Your task to perform on an android device: What's a good restaurant in Sacramento? Image 0: 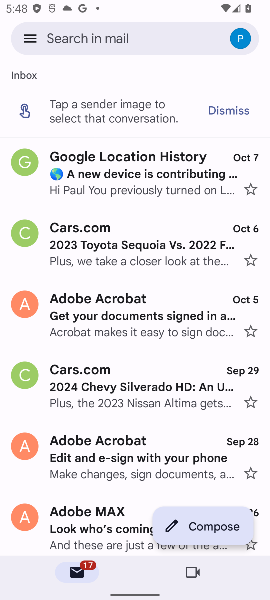
Step 0: press home button
Your task to perform on an android device: What's a good restaurant in Sacramento? Image 1: 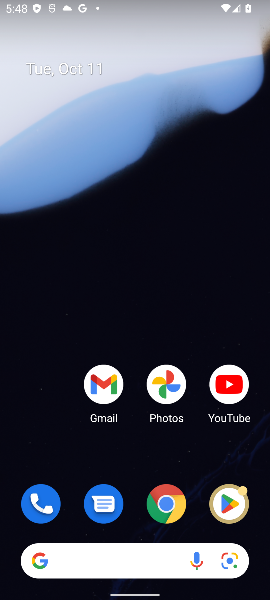
Step 1: click (123, 568)
Your task to perform on an android device: What's a good restaurant in Sacramento? Image 2: 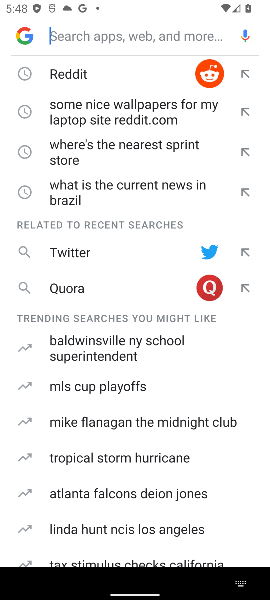
Step 2: click (77, 37)
Your task to perform on an android device: What's a good restaurant in Sacramento? Image 3: 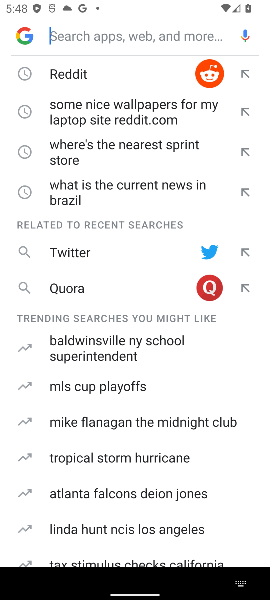
Step 3: type "What's a good restaurant in Sacramento?"
Your task to perform on an android device: What's a good restaurant in Sacramento? Image 4: 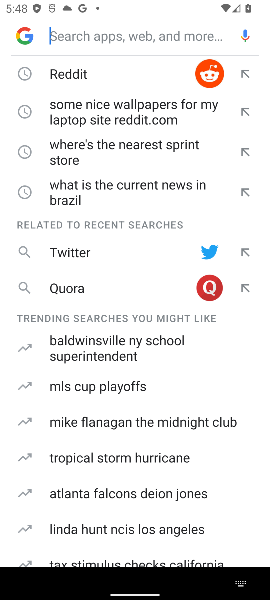
Step 4: click (109, 41)
Your task to perform on an android device: What's a good restaurant in Sacramento? Image 5: 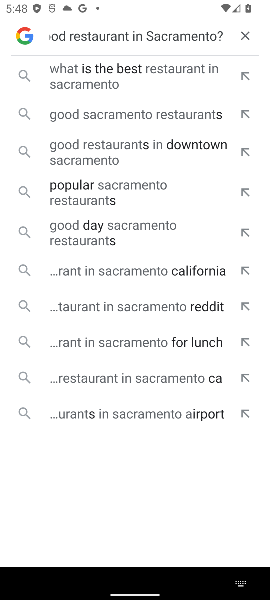
Step 5: click (132, 89)
Your task to perform on an android device: What's a good restaurant in Sacramento? Image 6: 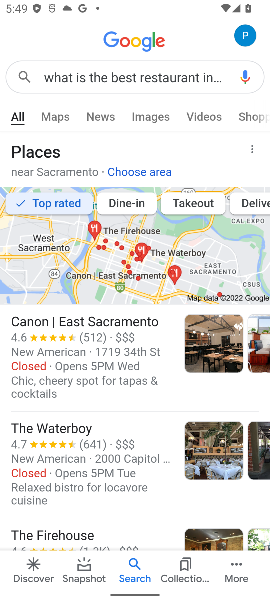
Step 6: task complete